Your task to perform on an android device: check data usage Image 0: 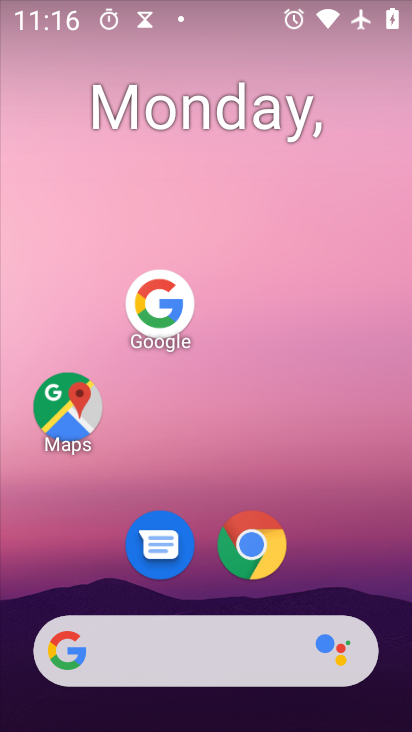
Step 0: press home button
Your task to perform on an android device: check data usage Image 1: 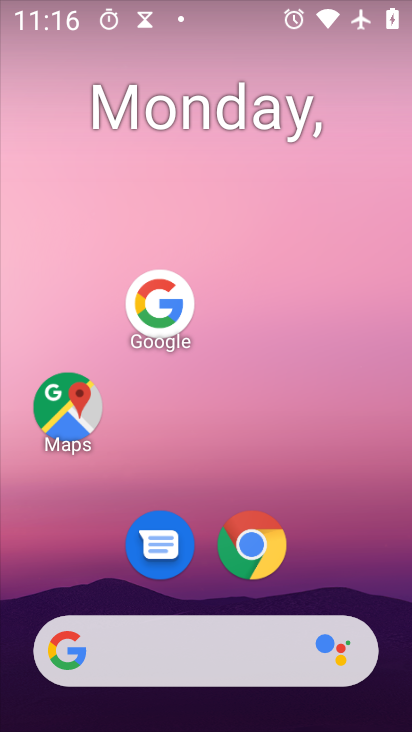
Step 1: drag from (215, 642) to (330, 109)
Your task to perform on an android device: check data usage Image 2: 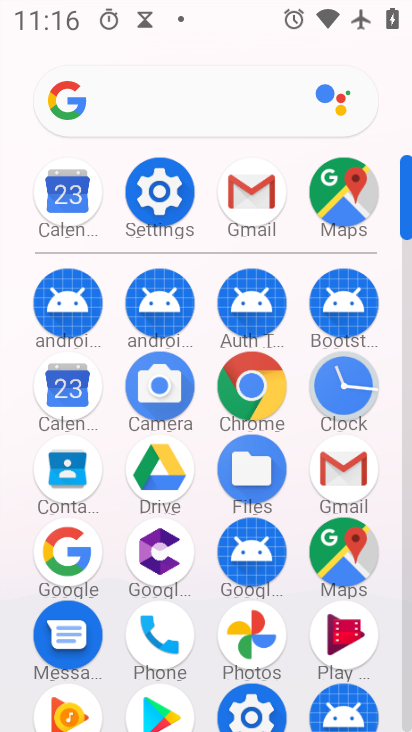
Step 2: click (161, 204)
Your task to perform on an android device: check data usage Image 3: 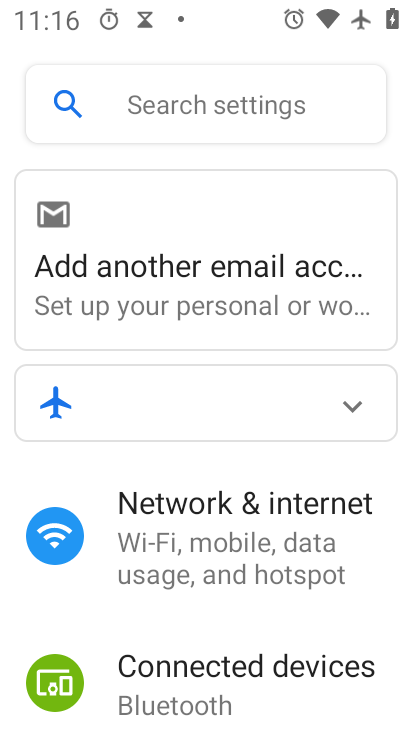
Step 3: drag from (225, 601) to (277, 368)
Your task to perform on an android device: check data usage Image 4: 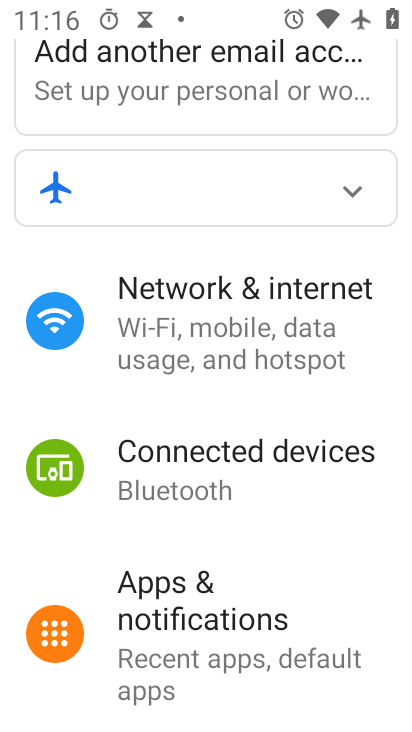
Step 4: click (219, 348)
Your task to perform on an android device: check data usage Image 5: 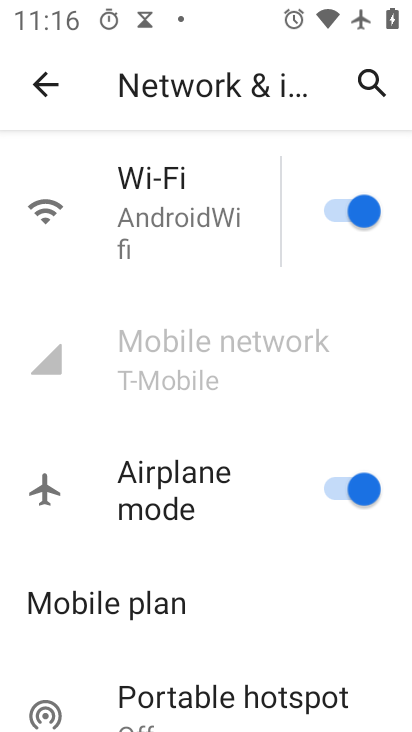
Step 5: click (185, 219)
Your task to perform on an android device: check data usage Image 6: 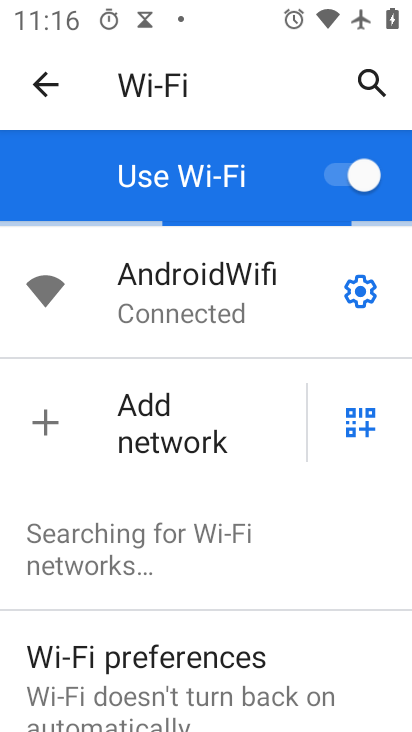
Step 6: drag from (160, 651) to (273, 145)
Your task to perform on an android device: check data usage Image 7: 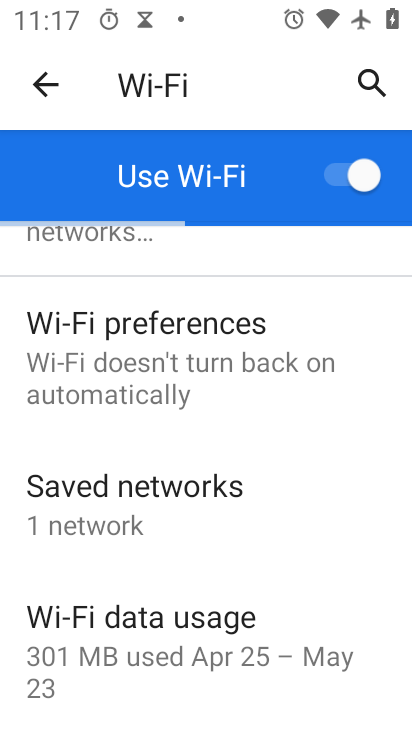
Step 7: click (168, 647)
Your task to perform on an android device: check data usage Image 8: 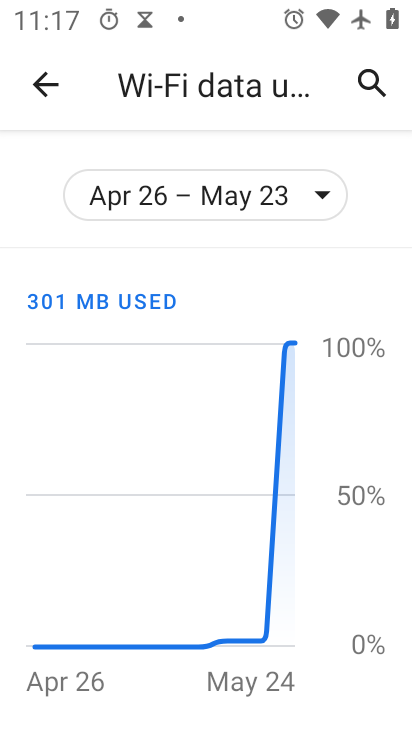
Step 8: task complete